Your task to perform on an android device: Go to Amazon Image 0: 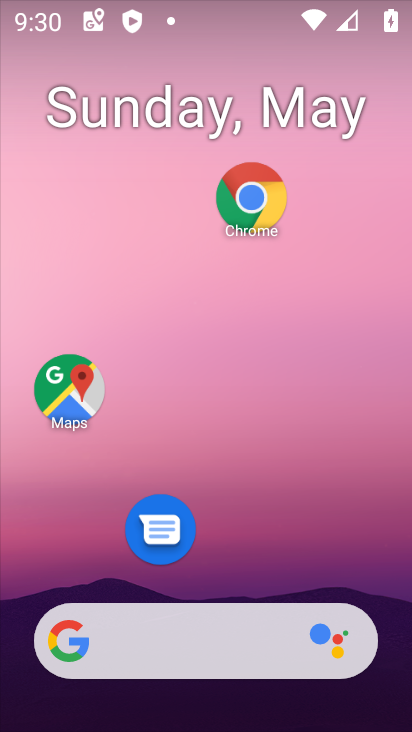
Step 0: click (256, 196)
Your task to perform on an android device: Go to Amazon Image 1: 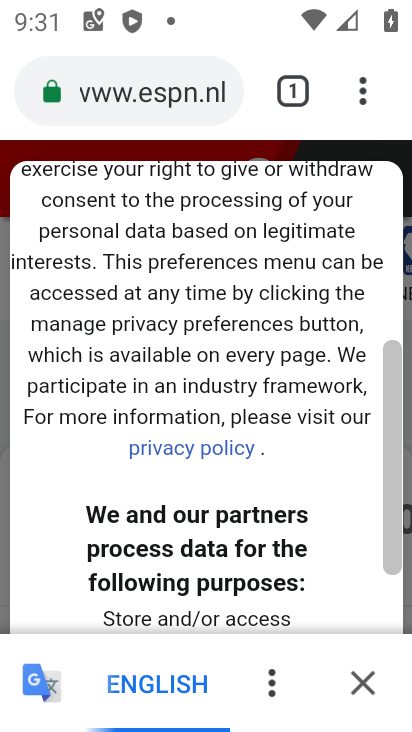
Step 1: click (198, 100)
Your task to perform on an android device: Go to Amazon Image 2: 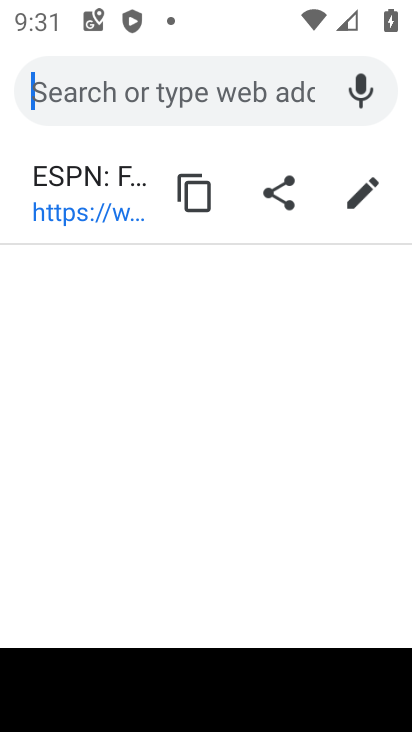
Step 2: type "amazon"
Your task to perform on an android device: Go to Amazon Image 3: 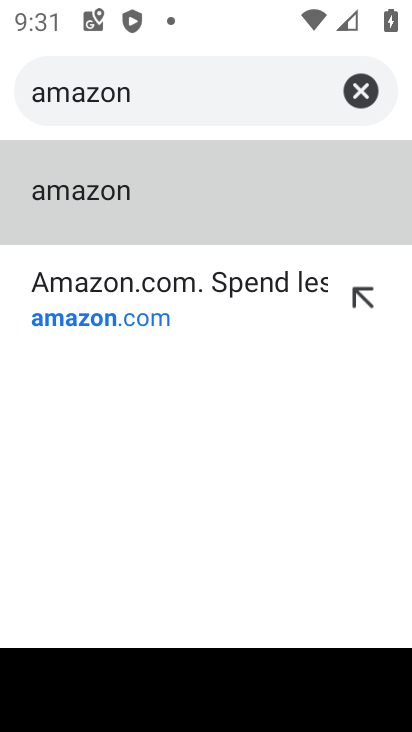
Step 3: click (40, 194)
Your task to perform on an android device: Go to Amazon Image 4: 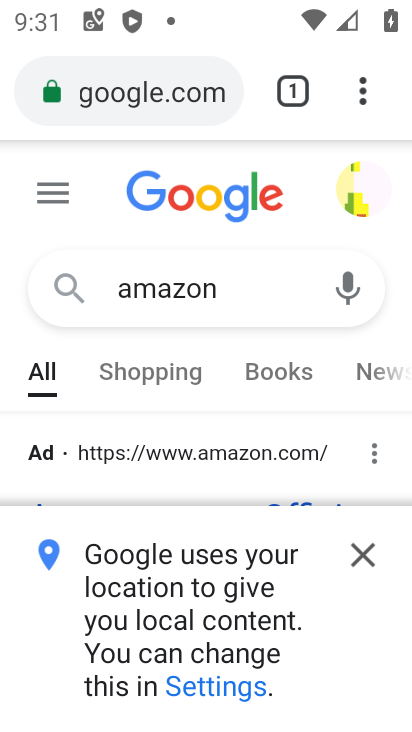
Step 4: click (359, 553)
Your task to perform on an android device: Go to Amazon Image 5: 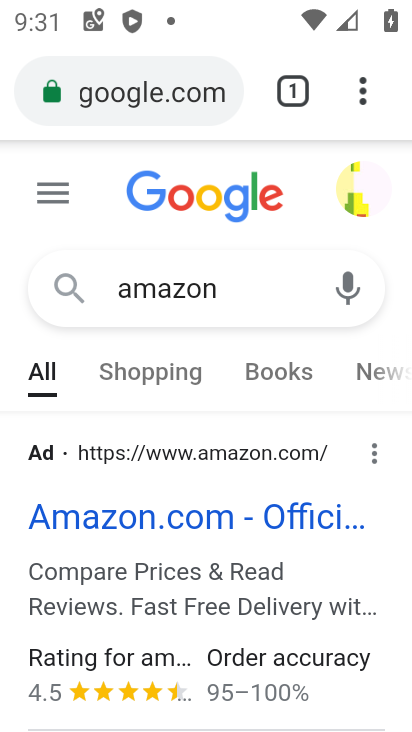
Step 5: click (144, 512)
Your task to perform on an android device: Go to Amazon Image 6: 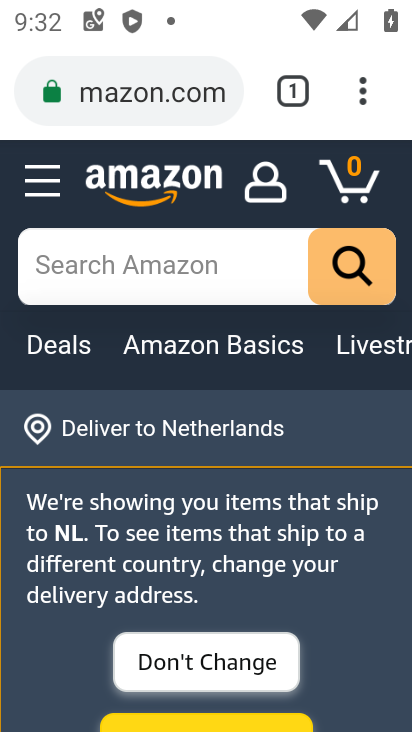
Step 6: task complete